Your task to perform on an android device: Open calendar and show me the first week of next month Image 0: 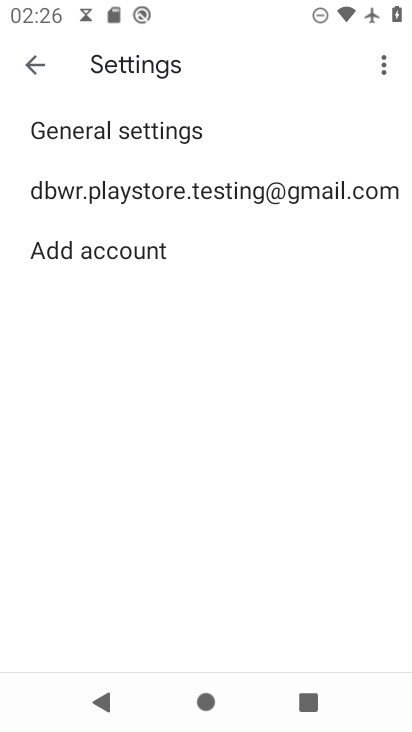
Step 0: press home button
Your task to perform on an android device: Open calendar and show me the first week of next month Image 1: 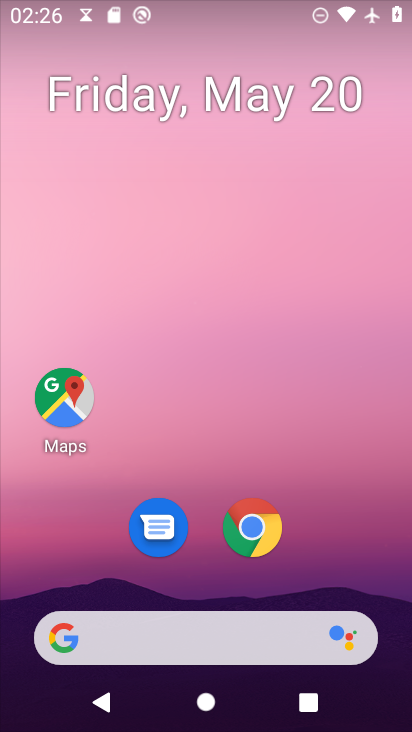
Step 1: drag from (195, 653) to (313, 166)
Your task to perform on an android device: Open calendar and show me the first week of next month Image 2: 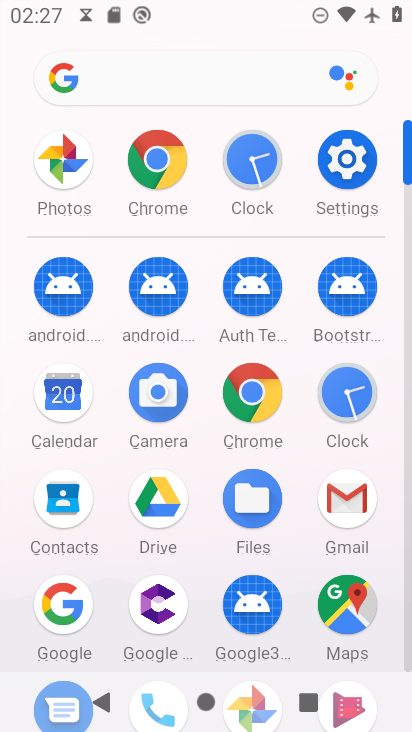
Step 2: click (55, 389)
Your task to perform on an android device: Open calendar and show me the first week of next month Image 3: 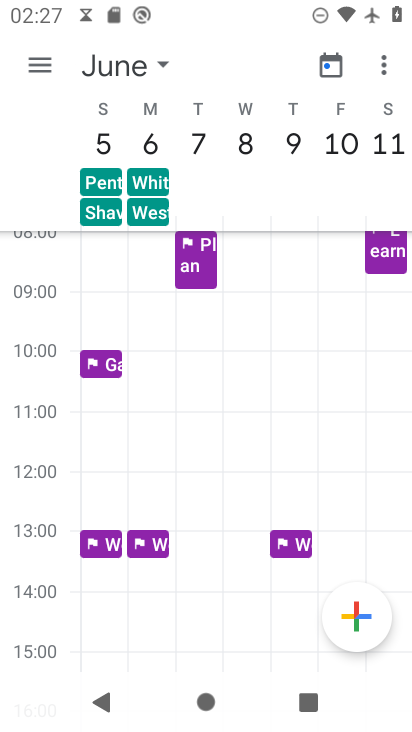
Step 3: click (110, 71)
Your task to perform on an android device: Open calendar and show me the first week of next month Image 4: 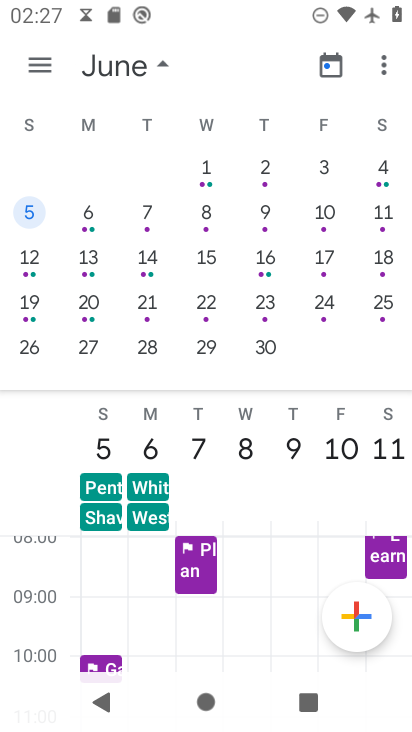
Step 4: drag from (80, 296) to (404, 295)
Your task to perform on an android device: Open calendar and show me the first week of next month Image 5: 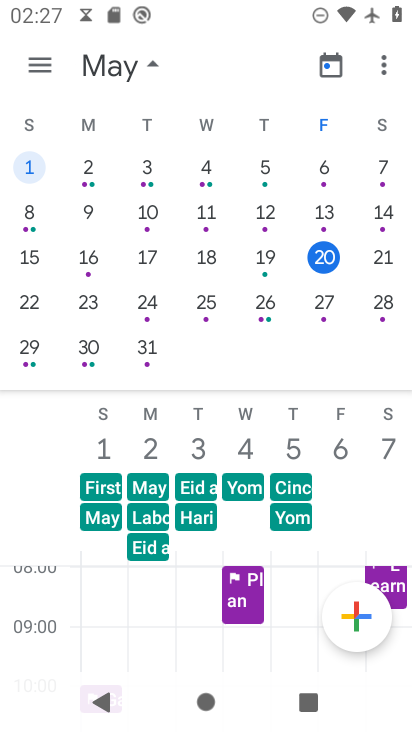
Step 5: drag from (343, 208) to (46, 197)
Your task to perform on an android device: Open calendar and show me the first week of next month Image 6: 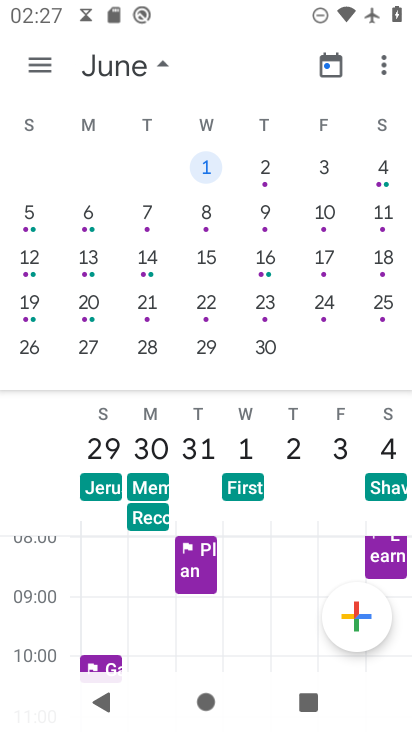
Step 6: click (213, 168)
Your task to perform on an android device: Open calendar and show me the first week of next month Image 7: 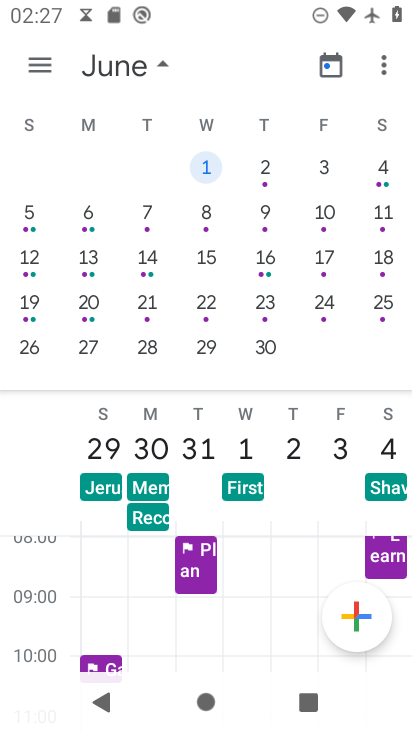
Step 7: click (37, 66)
Your task to perform on an android device: Open calendar and show me the first week of next month Image 8: 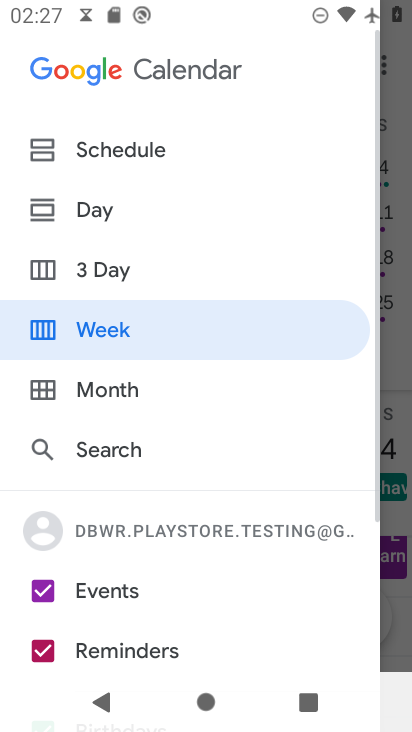
Step 8: click (121, 321)
Your task to perform on an android device: Open calendar and show me the first week of next month Image 9: 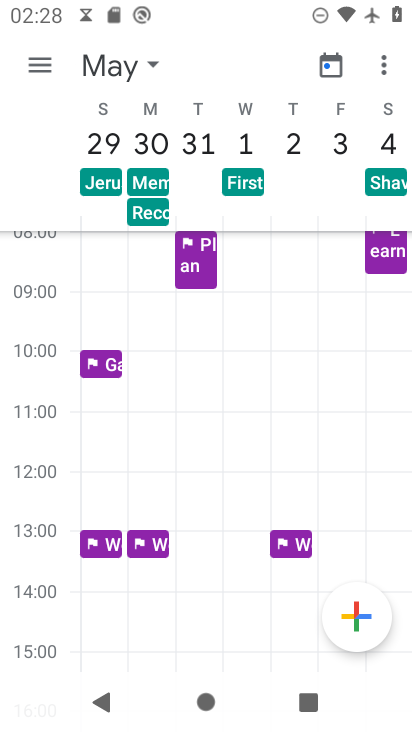
Step 9: task complete